Your task to perform on an android device: toggle translation in the chrome app Image 0: 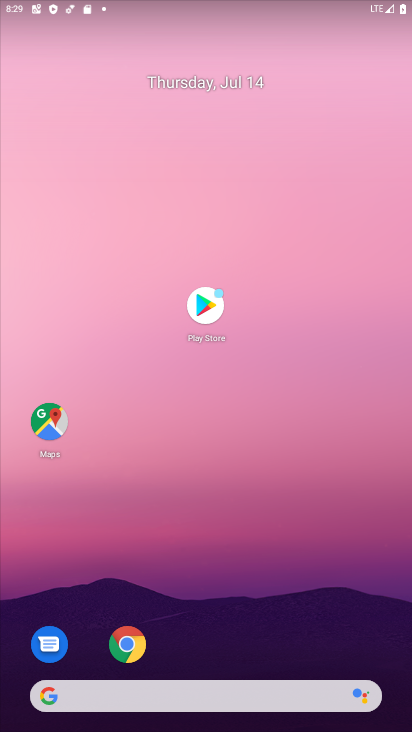
Step 0: drag from (188, 676) to (239, 145)
Your task to perform on an android device: toggle translation in the chrome app Image 1: 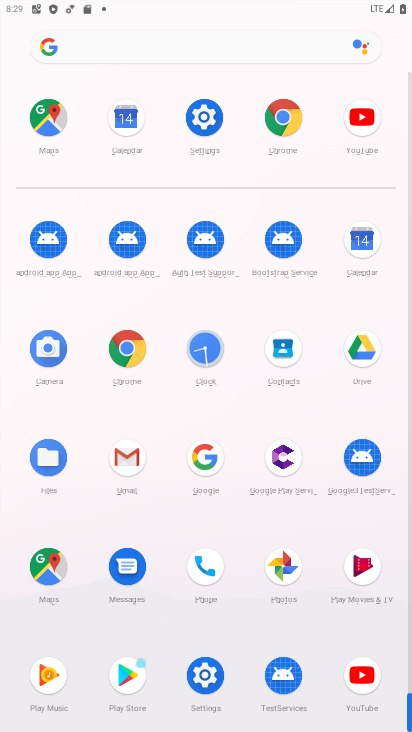
Step 1: click (131, 342)
Your task to perform on an android device: toggle translation in the chrome app Image 2: 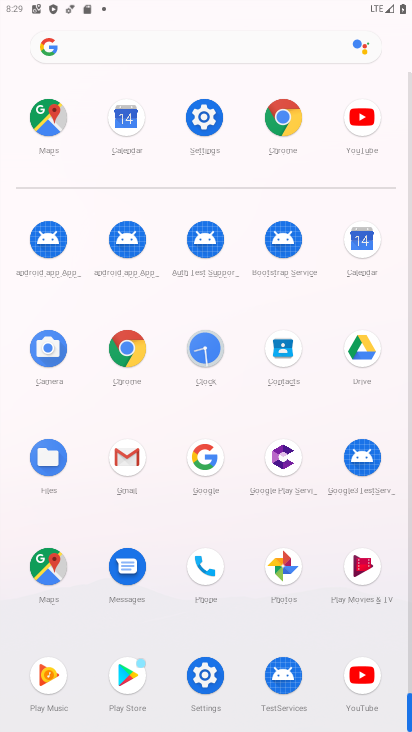
Step 2: click (131, 342)
Your task to perform on an android device: toggle translation in the chrome app Image 3: 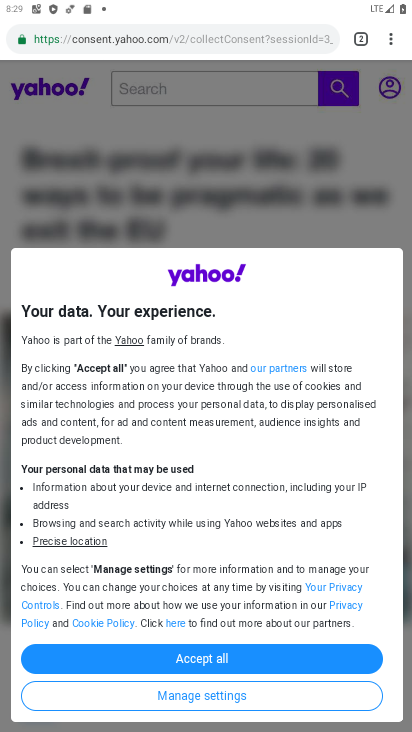
Step 3: drag from (232, 564) to (254, 413)
Your task to perform on an android device: toggle translation in the chrome app Image 4: 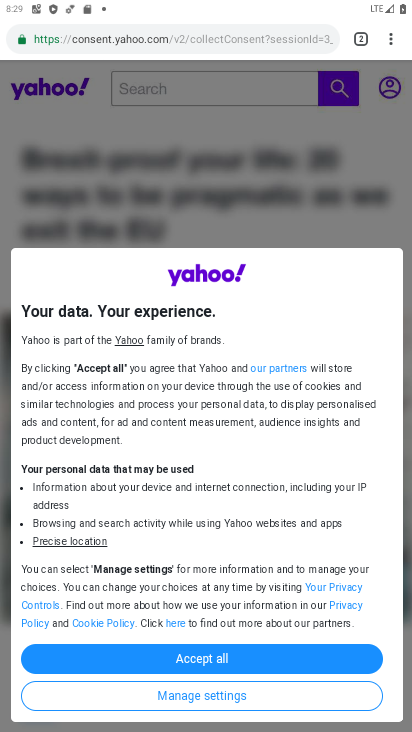
Step 4: drag from (213, 542) to (229, 340)
Your task to perform on an android device: toggle translation in the chrome app Image 5: 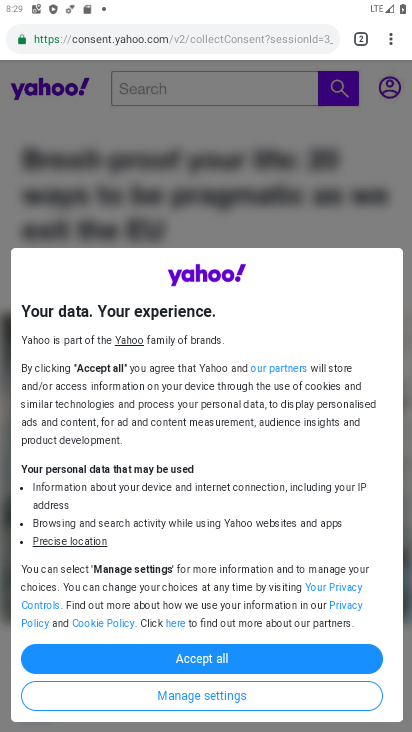
Step 5: drag from (212, 562) to (268, 194)
Your task to perform on an android device: toggle translation in the chrome app Image 6: 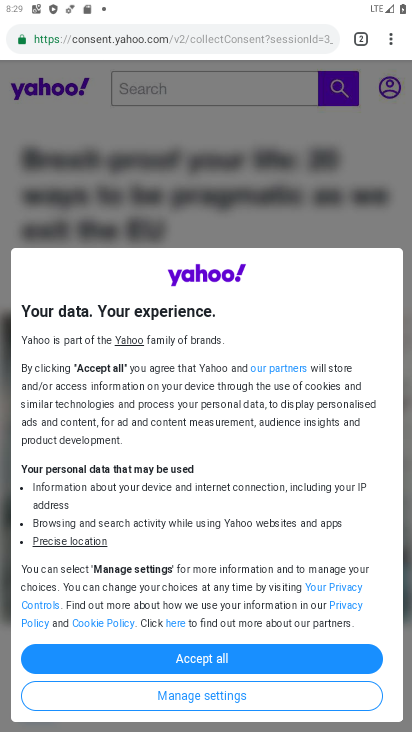
Step 6: click (401, 37)
Your task to perform on an android device: toggle translation in the chrome app Image 7: 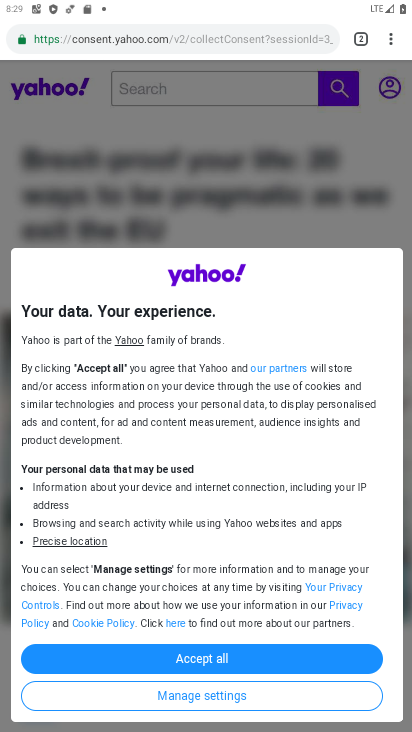
Step 7: drag from (396, 37) to (279, 462)
Your task to perform on an android device: toggle translation in the chrome app Image 8: 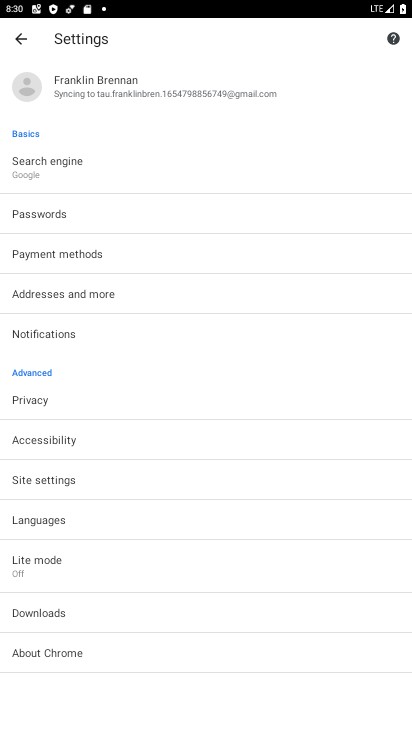
Step 8: click (75, 522)
Your task to perform on an android device: toggle translation in the chrome app Image 9: 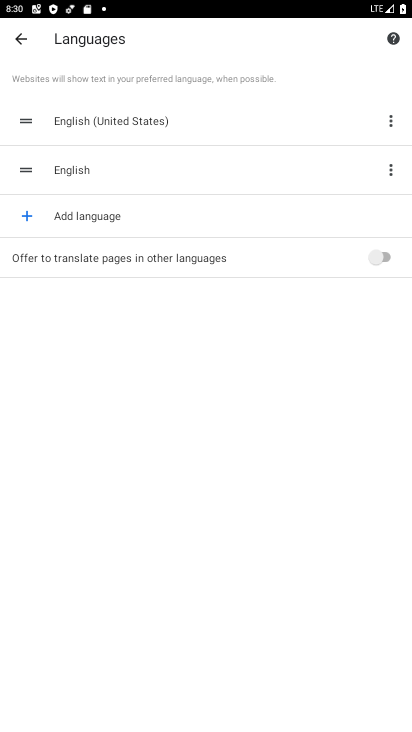
Step 9: task complete